Your task to perform on an android device: empty trash in google photos Image 0: 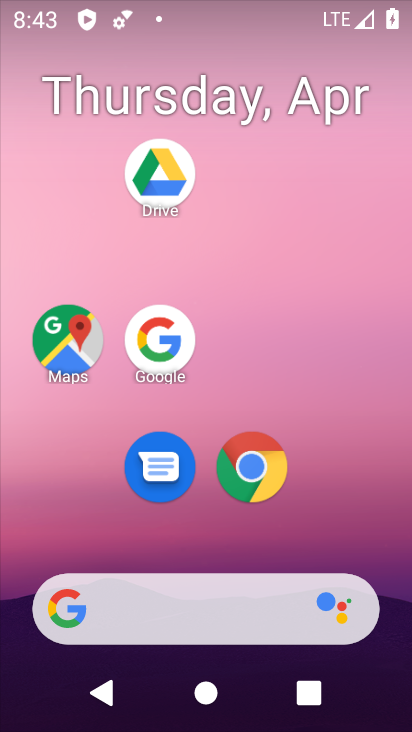
Step 0: drag from (224, 601) to (257, 196)
Your task to perform on an android device: empty trash in google photos Image 1: 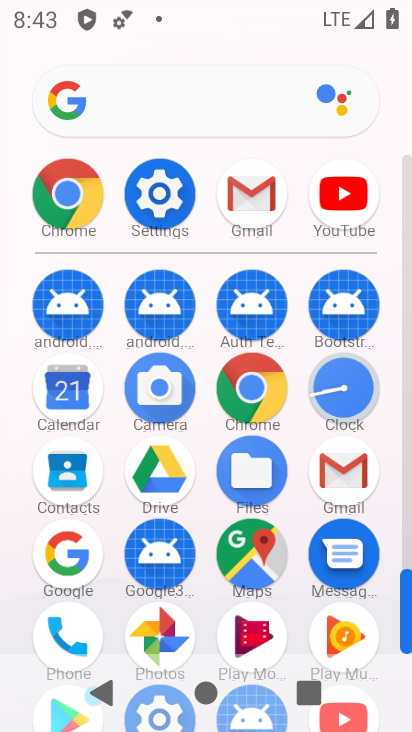
Step 1: click (172, 618)
Your task to perform on an android device: empty trash in google photos Image 2: 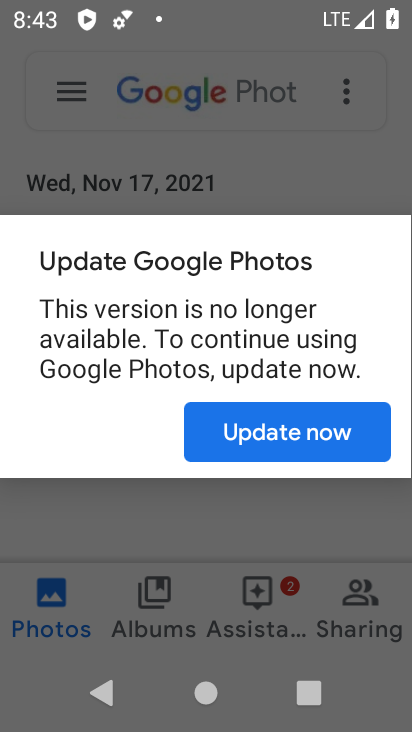
Step 2: press home button
Your task to perform on an android device: empty trash in google photos Image 3: 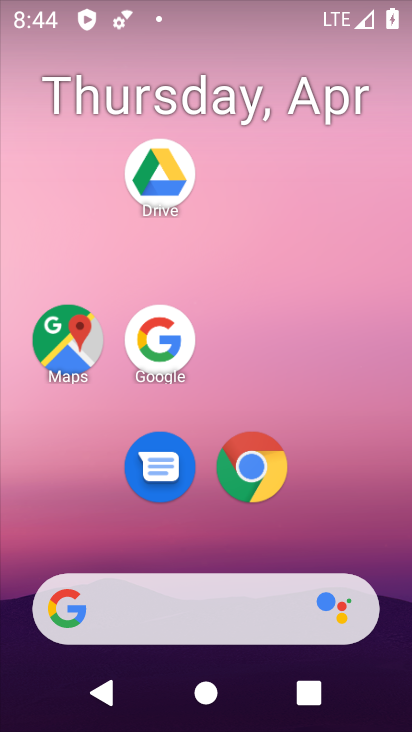
Step 3: drag from (198, 581) to (297, 45)
Your task to perform on an android device: empty trash in google photos Image 4: 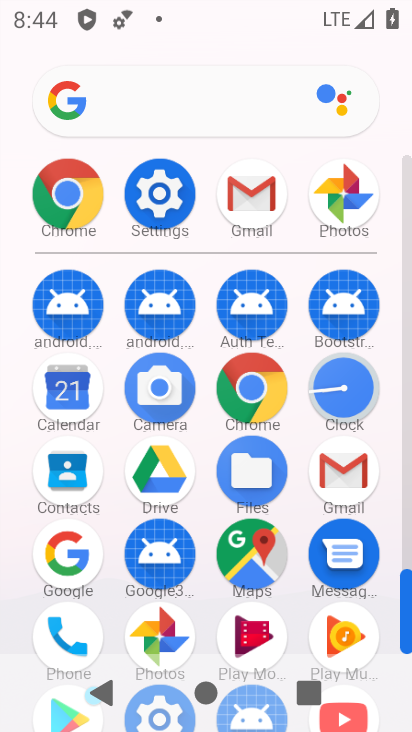
Step 4: click (156, 623)
Your task to perform on an android device: empty trash in google photos Image 5: 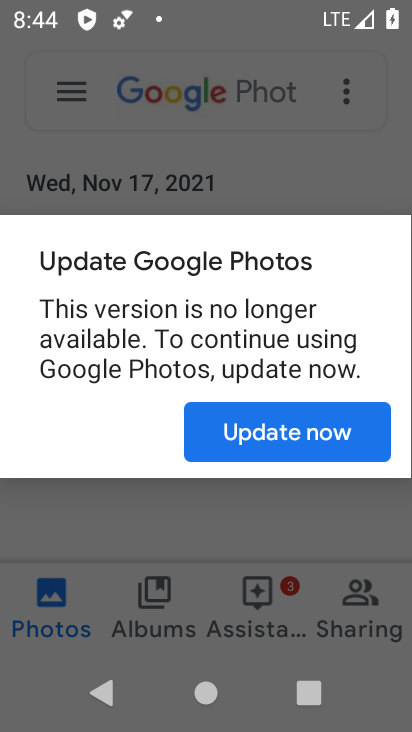
Step 5: click (345, 425)
Your task to perform on an android device: empty trash in google photos Image 6: 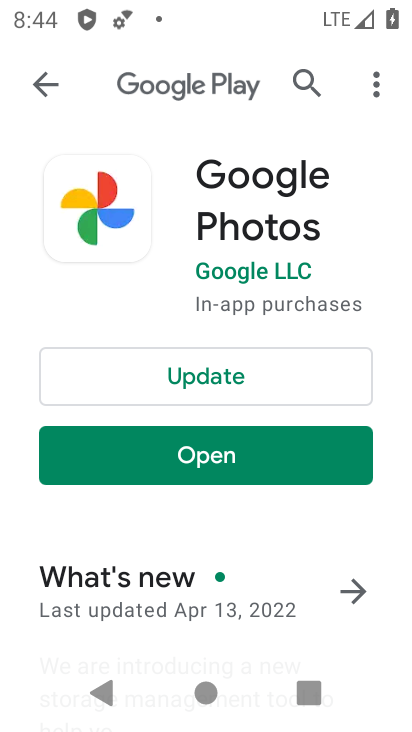
Step 6: click (234, 383)
Your task to perform on an android device: empty trash in google photos Image 7: 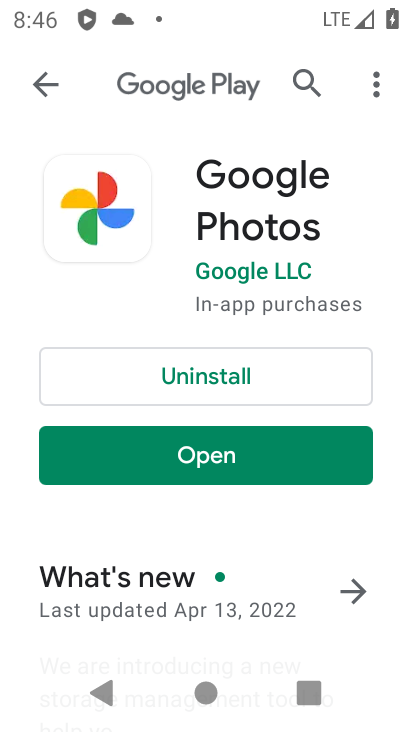
Step 7: click (225, 461)
Your task to perform on an android device: empty trash in google photos Image 8: 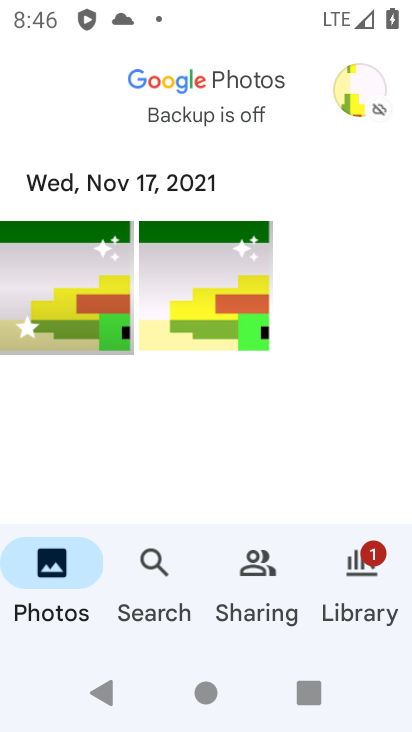
Step 8: click (339, 590)
Your task to perform on an android device: empty trash in google photos Image 9: 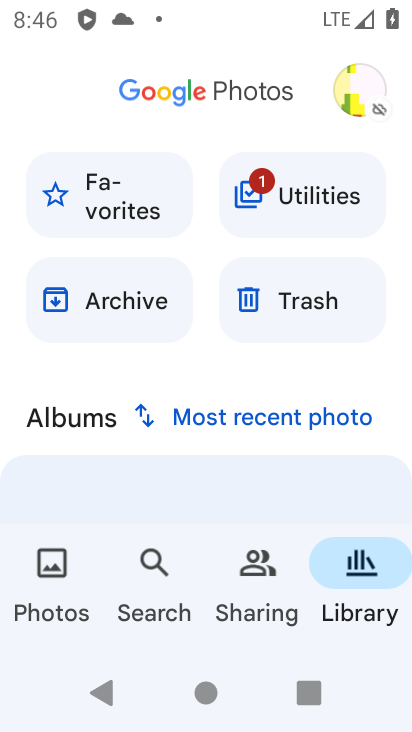
Step 9: click (312, 296)
Your task to perform on an android device: empty trash in google photos Image 10: 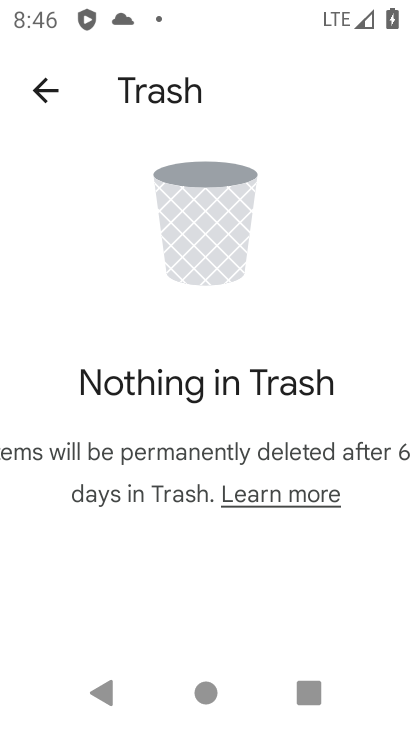
Step 10: task complete